Your task to perform on an android device: Is it going to rain this weekend? Image 0: 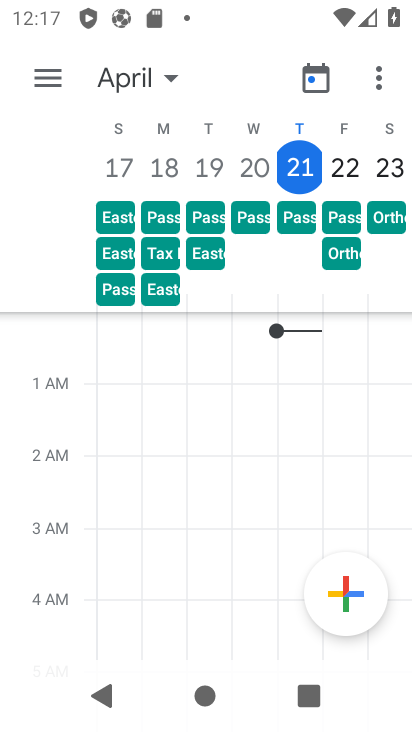
Step 0: press home button
Your task to perform on an android device: Is it going to rain this weekend? Image 1: 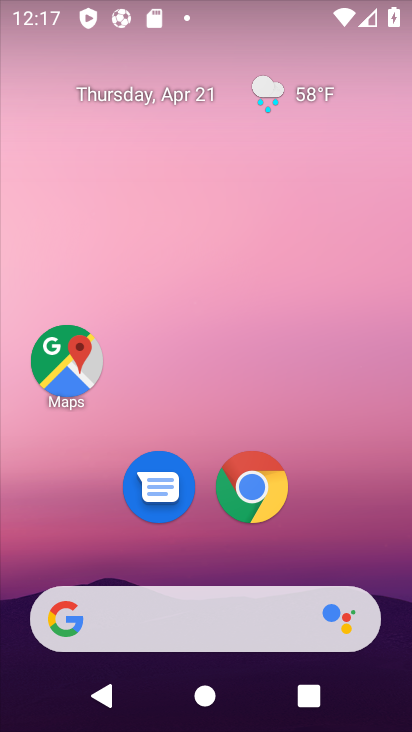
Step 1: click (292, 96)
Your task to perform on an android device: Is it going to rain this weekend? Image 2: 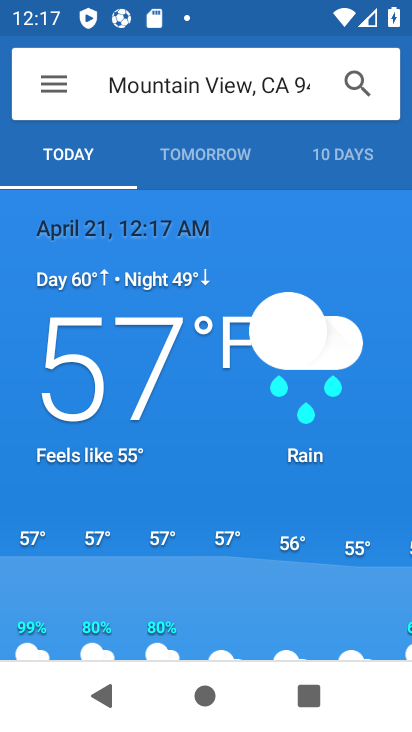
Step 2: click (335, 161)
Your task to perform on an android device: Is it going to rain this weekend? Image 3: 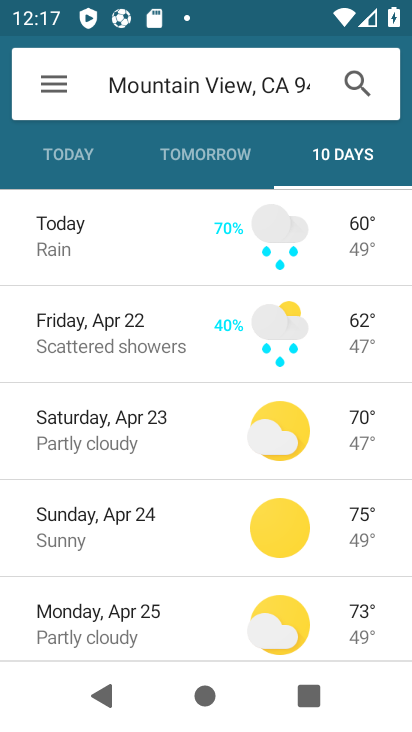
Step 3: task complete